Your task to perform on an android device: install app "Google Chat" Image 0: 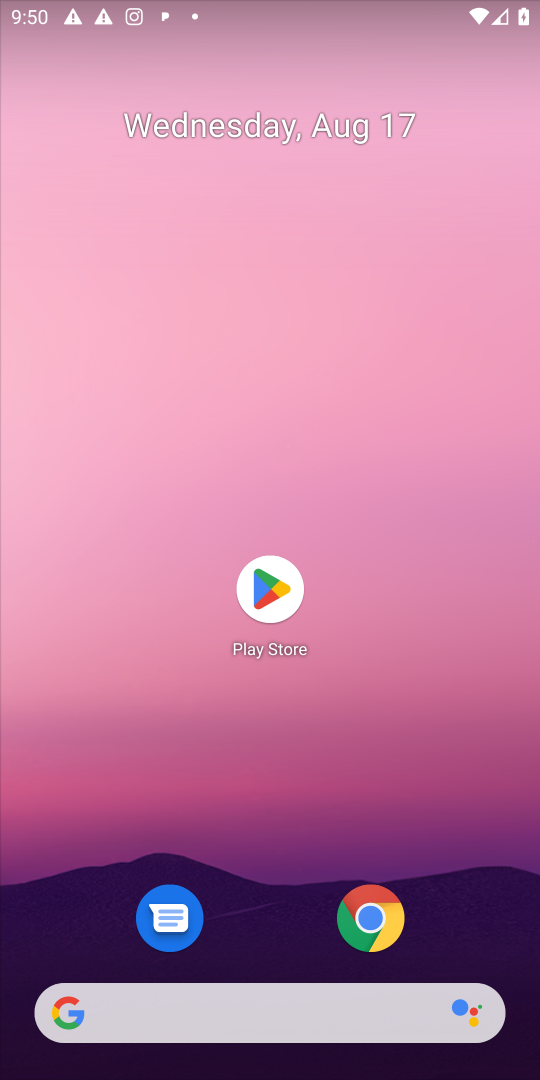
Step 0: click (276, 595)
Your task to perform on an android device: install app "Google Chat" Image 1: 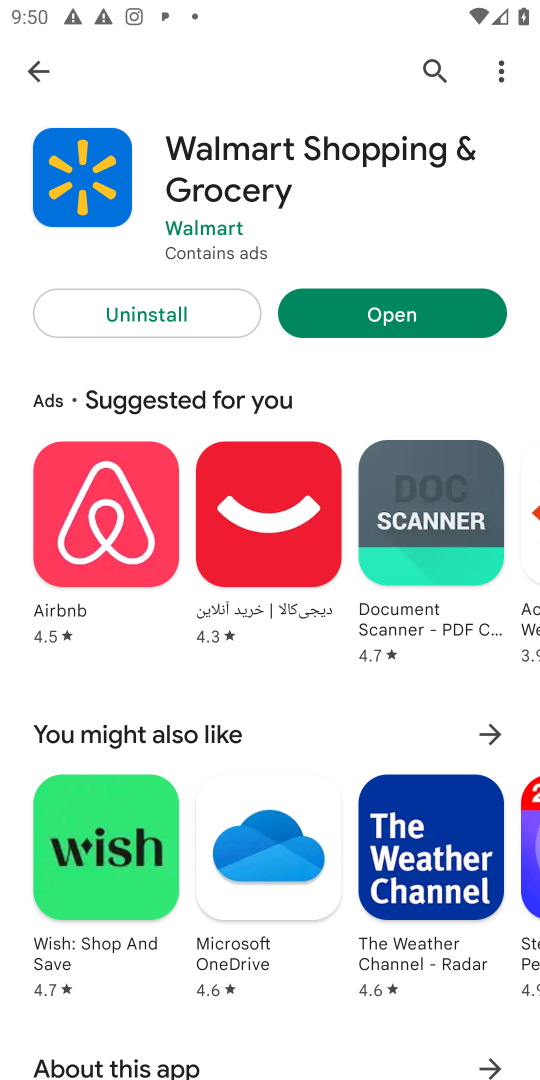
Step 1: click (430, 71)
Your task to perform on an android device: install app "Google Chat" Image 2: 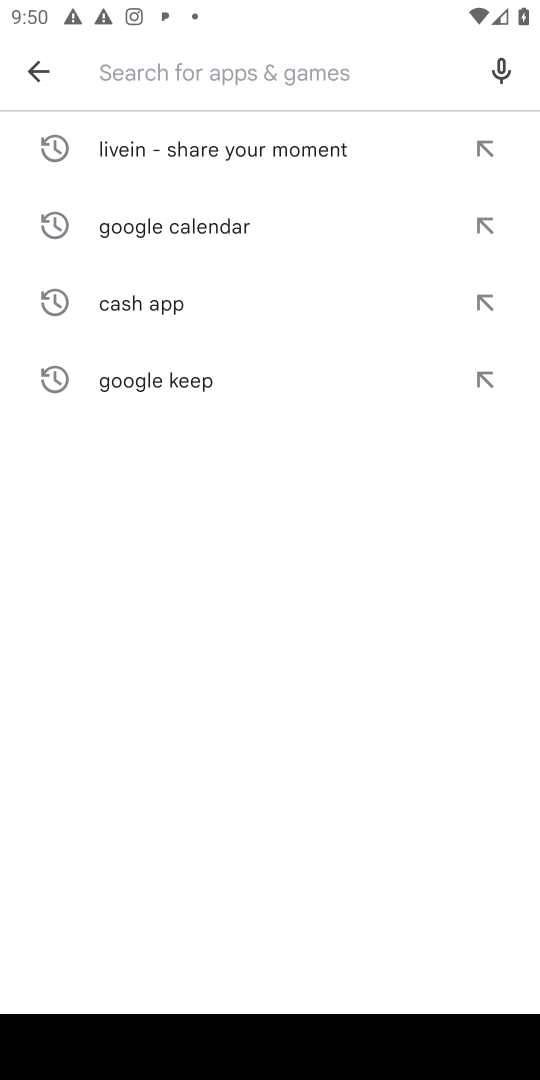
Step 2: type "Google Chat"
Your task to perform on an android device: install app "Google Chat" Image 3: 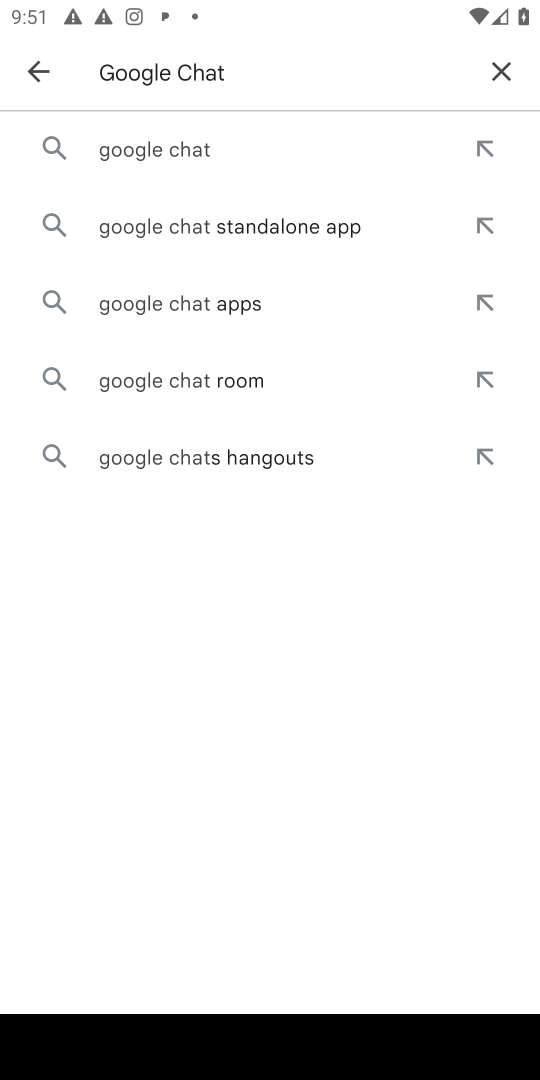
Step 3: click (187, 160)
Your task to perform on an android device: install app "Google Chat" Image 4: 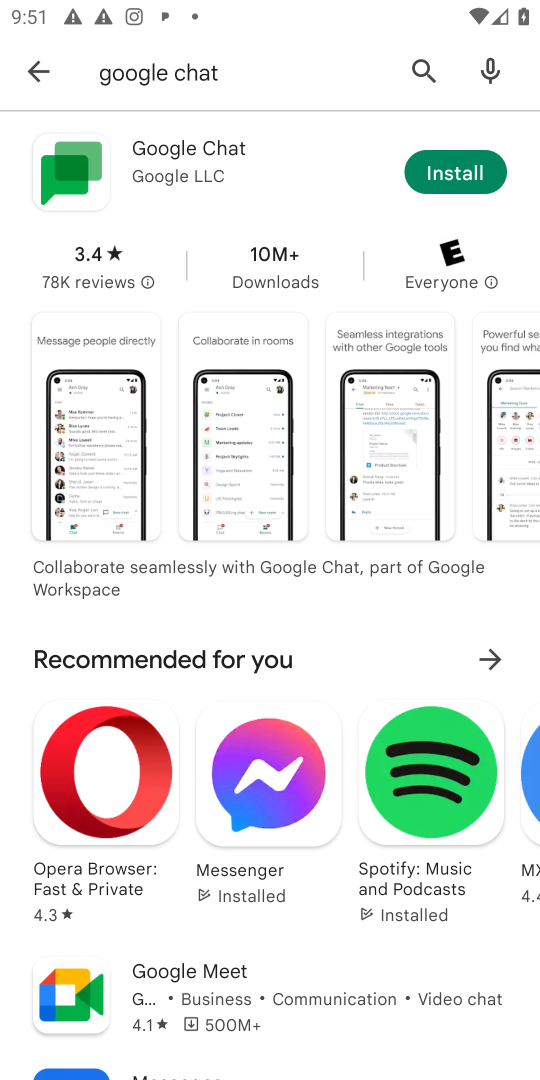
Step 4: click (462, 176)
Your task to perform on an android device: install app "Google Chat" Image 5: 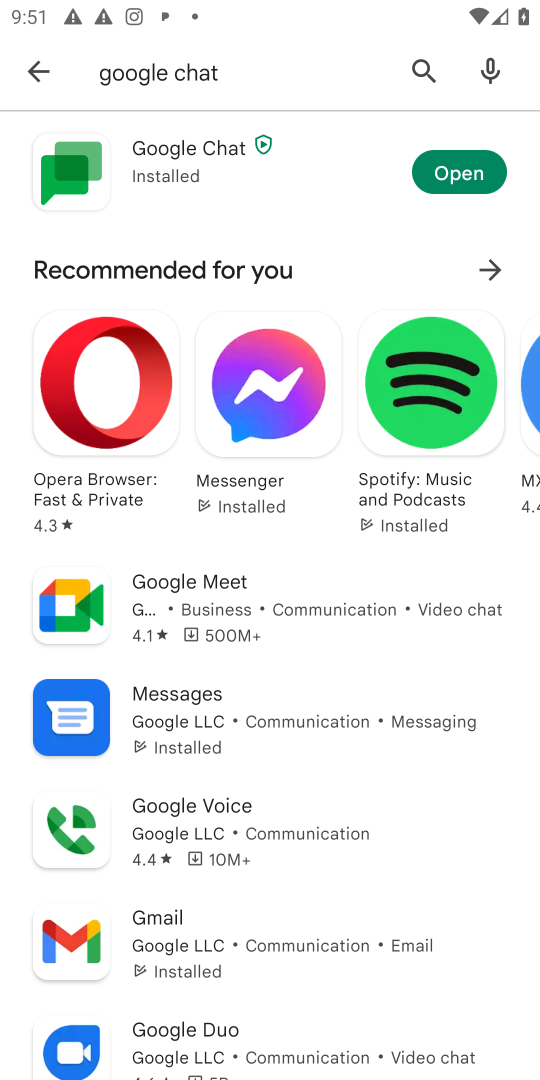
Step 5: task complete